Your task to perform on an android device: Show me popular games on the Play Store Image 0: 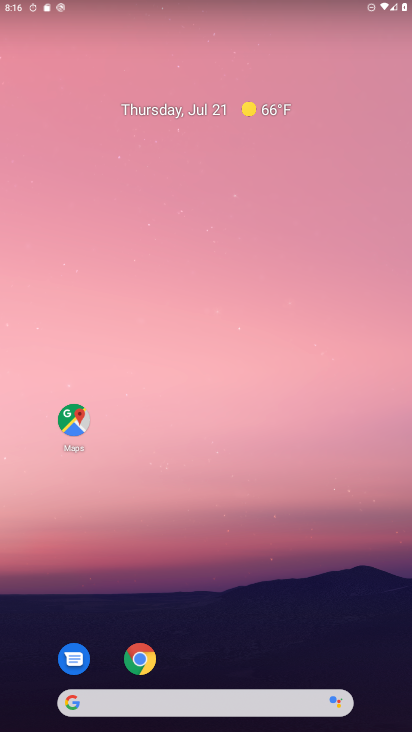
Step 0: drag from (174, 646) to (216, 121)
Your task to perform on an android device: Show me popular games on the Play Store Image 1: 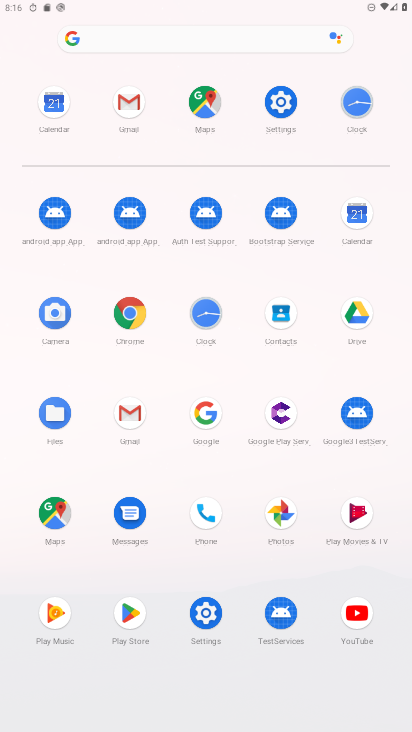
Step 1: click (129, 606)
Your task to perform on an android device: Show me popular games on the Play Store Image 2: 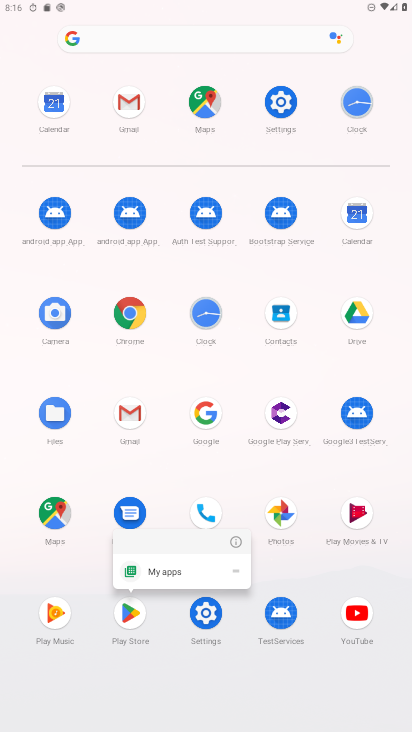
Step 2: click (236, 543)
Your task to perform on an android device: Show me popular games on the Play Store Image 3: 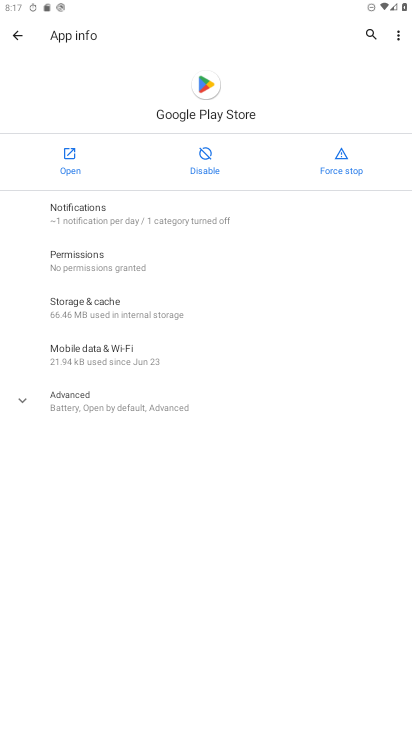
Step 3: click (71, 165)
Your task to perform on an android device: Show me popular games on the Play Store Image 4: 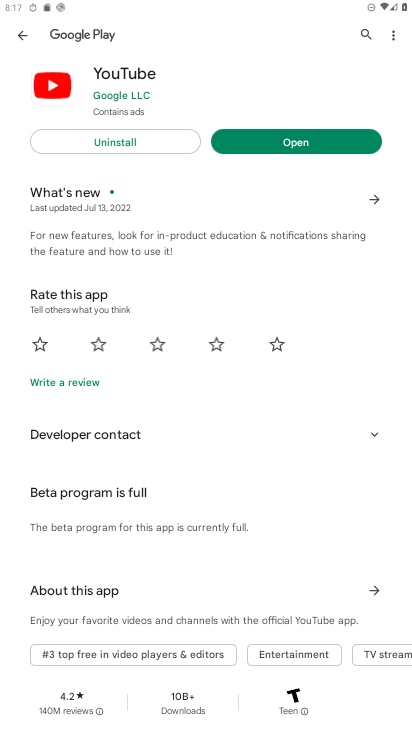
Step 4: click (17, 36)
Your task to perform on an android device: Show me popular games on the Play Store Image 5: 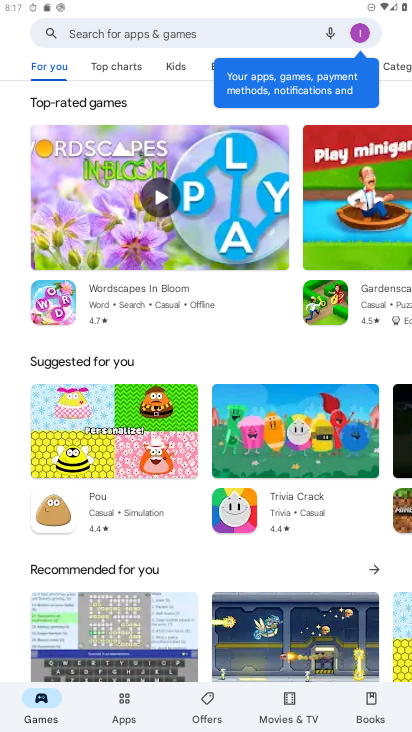
Step 5: task complete